Your task to perform on an android device: Open location settings Image 0: 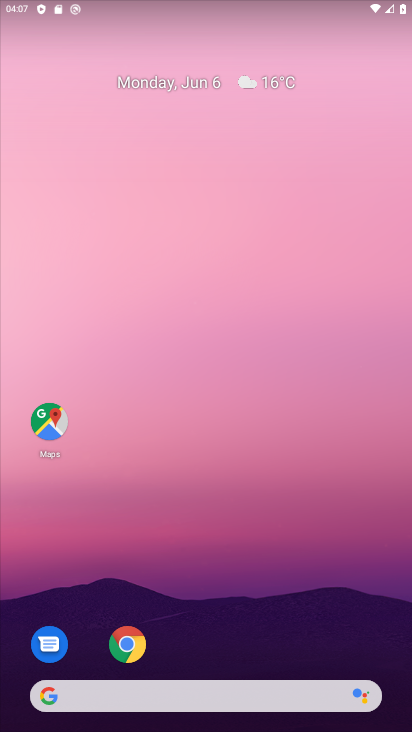
Step 0: drag from (387, 691) to (371, 97)
Your task to perform on an android device: Open location settings Image 1: 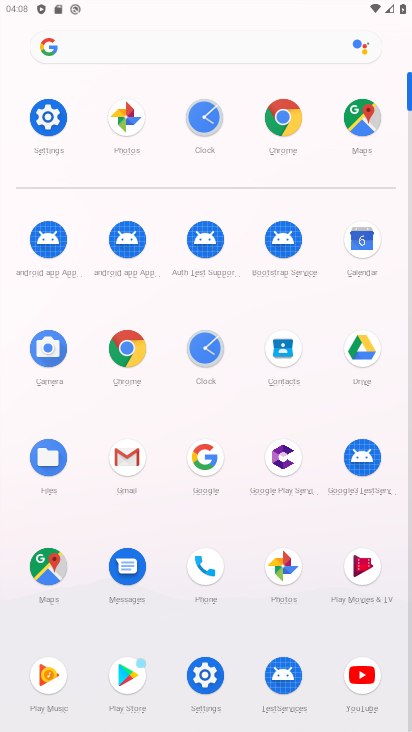
Step 1: click (49, 119)
Your task to perform on an android device: Open location settings Image 2: 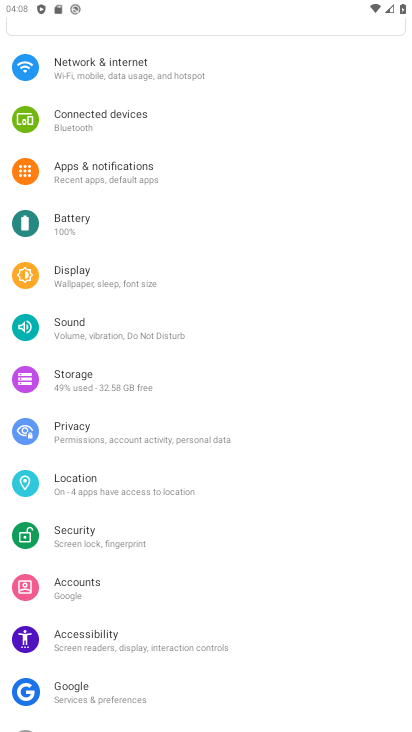
Step 2: click (95, 473)
Your task to perform on an android device: Open location settings Image 3: 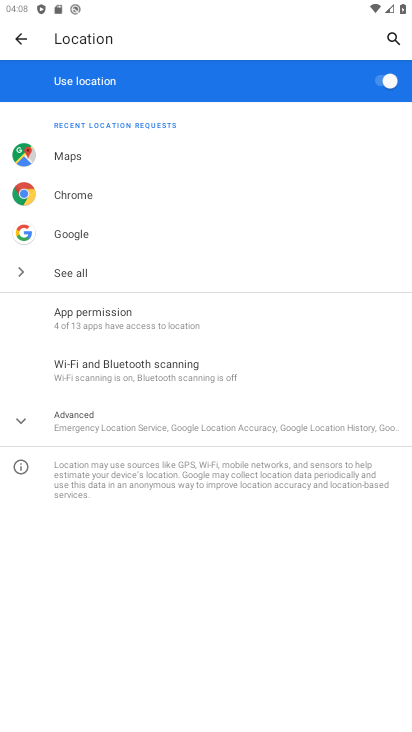
Step 3: click (26, 423)
Your task to perform on an android device: Open location settings Image 4: 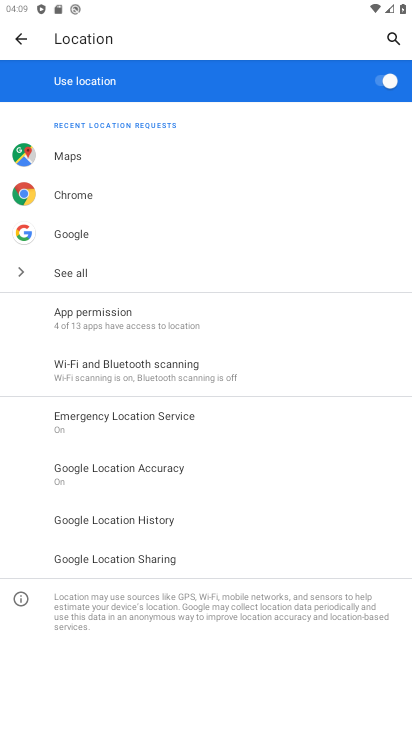
Step 4: task complete